Your task to perform on an android device: Open CNN.com Image 0: 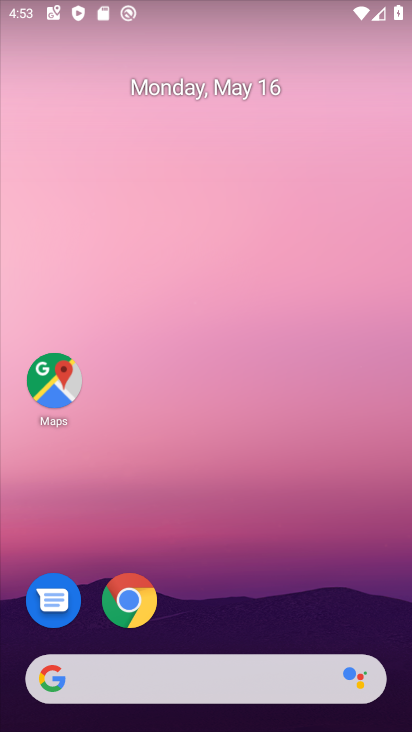
Step 0: click (108, 600)
Your task to perform on an android device: Open CNN.com Image 1: 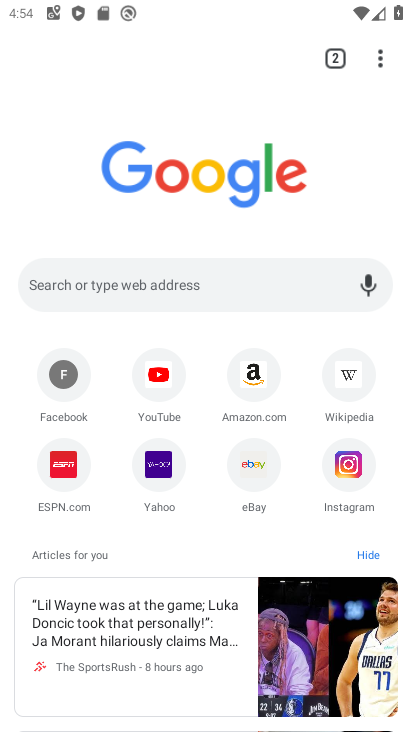
Step 1: click (115, 291)
Your task to perform on an android device: Open CNN.com Image 2: 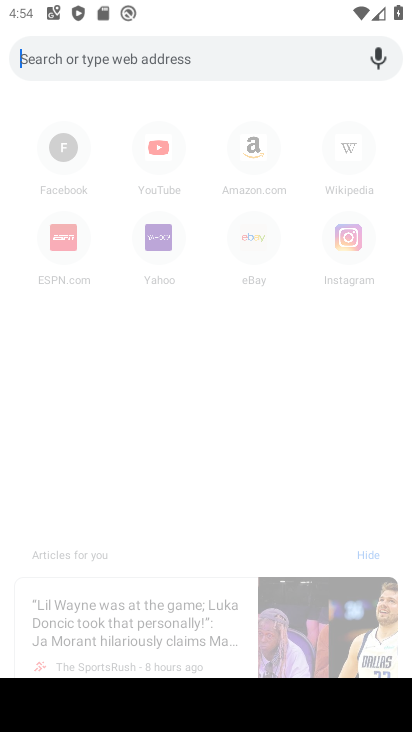
Step 2: type "cnn"
Your task to perform on an android device: Open CNN.com Image 3: 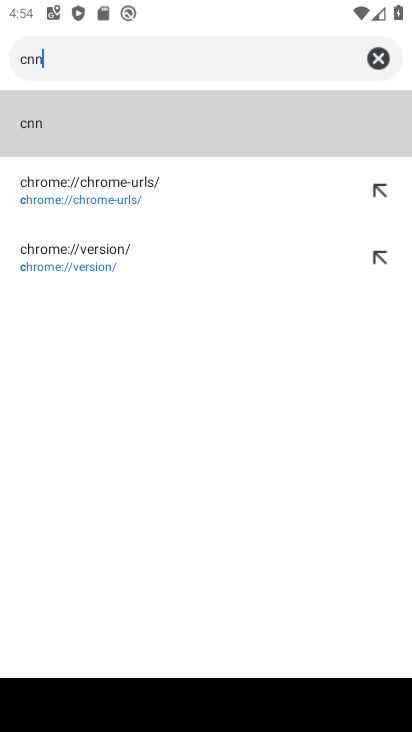
Step 3: type ""
Your task to perform on an android device: Open CNN.com Image 4: 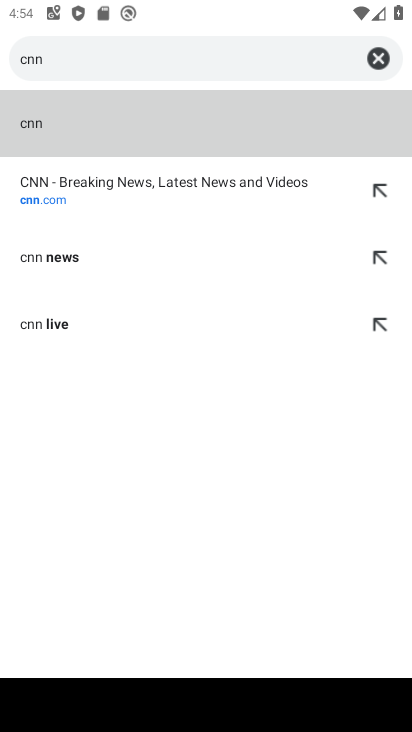
Step 4: click (81, 203)
Your task to perform on an android device: Open CNN.com Image 5: 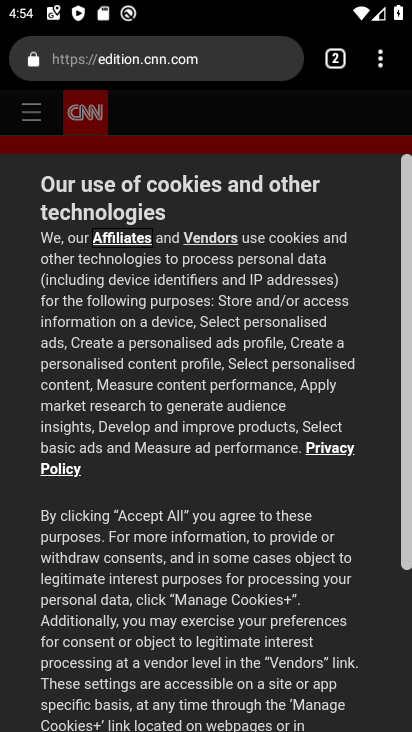
Step 5: task complete